Your task to perform on an android device: turn off airplane mode Image 0: 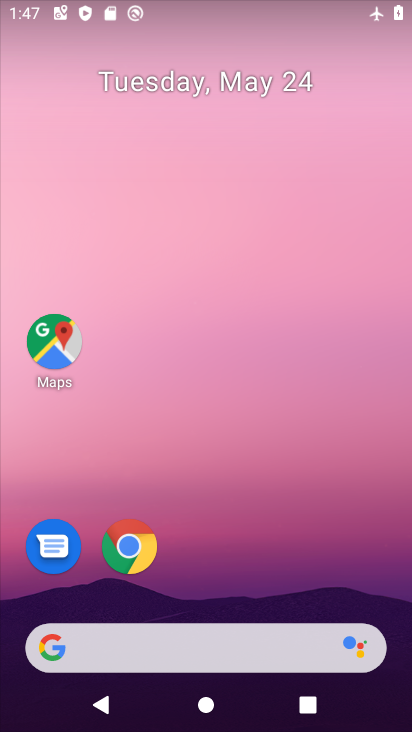
Step 0: drag from (239, 604) to (379, 17)
Your task to perform on an android device: turn off airplane mode Image 1: 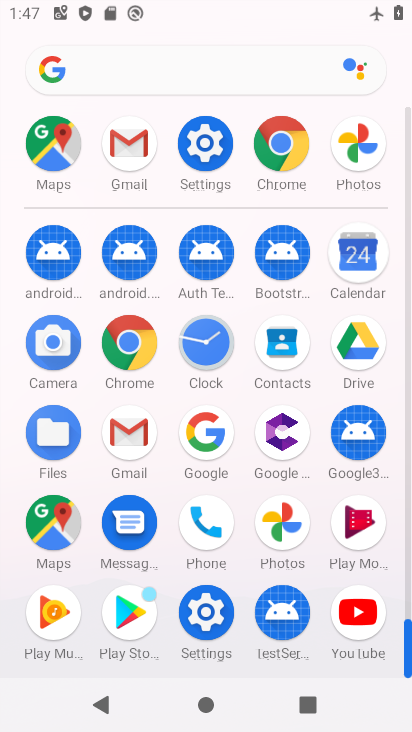
Step 1: click (202, 147)
Your task to perform on an android device: turn off airplane mode Image 2: 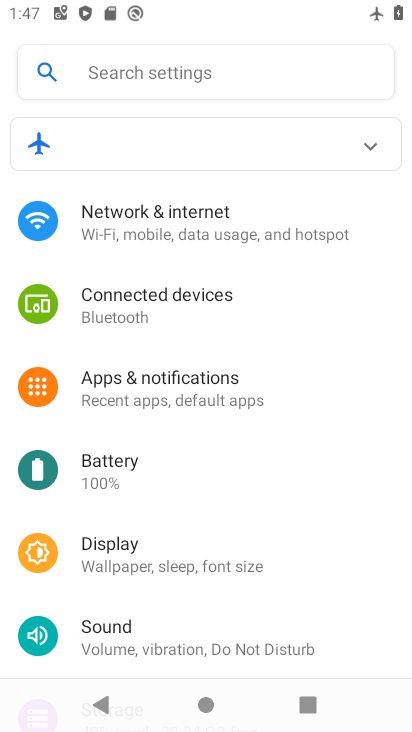
Step 2: drag from (192, 390) to (238, 514)
Your task to perform on an android device: turn off airplane mode Image 3: 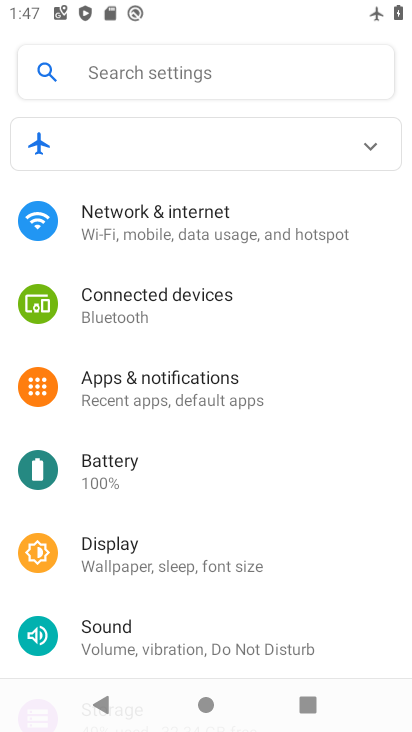
Step 3: click (220, 218)
Your task to perform on an android device: turn off airplane mode Image 4: 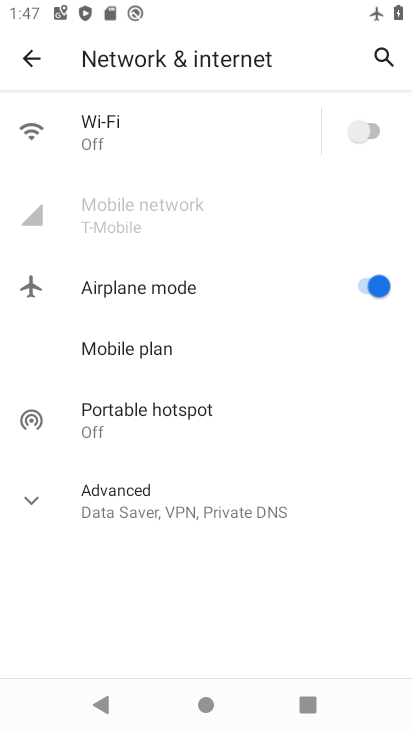
Step 4: click (378, 284)
Your task to perform on an android device: turn off airplane mode Image 5: 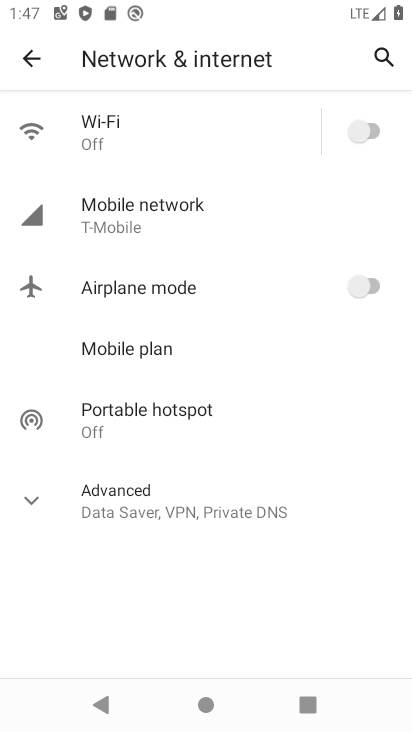
Step 5: task complete